Your task to perform on an android device: What's the weather going to be tomorrow? Image 0: 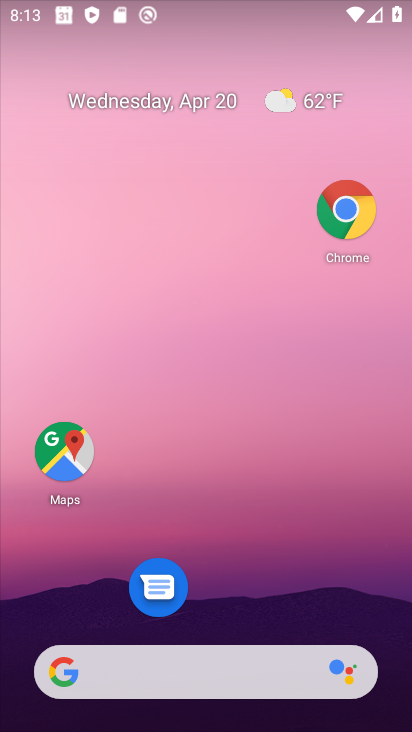
Step 0: click (321, 106)
Your task to perform on an android device: What's the weather going to be tomorrow? Image 1: 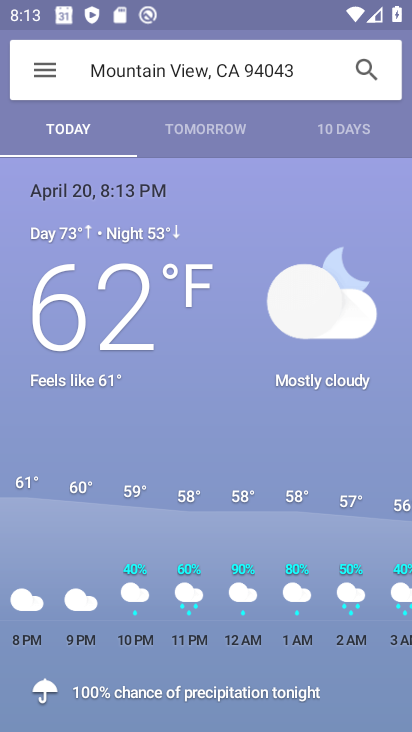
Step 1: click (224, 146)
Your task to perform on an android device: What's the weather going to be tomorrow? Image 2: 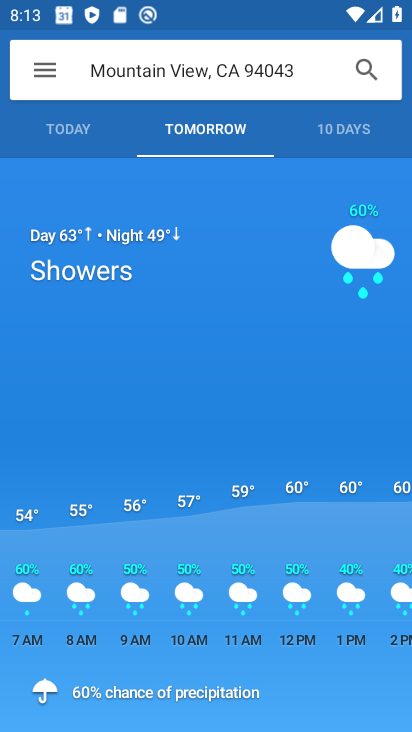
Step 2: task complete